Your task to perform on an android device: turn smart compose on in the gmail app Image 0: 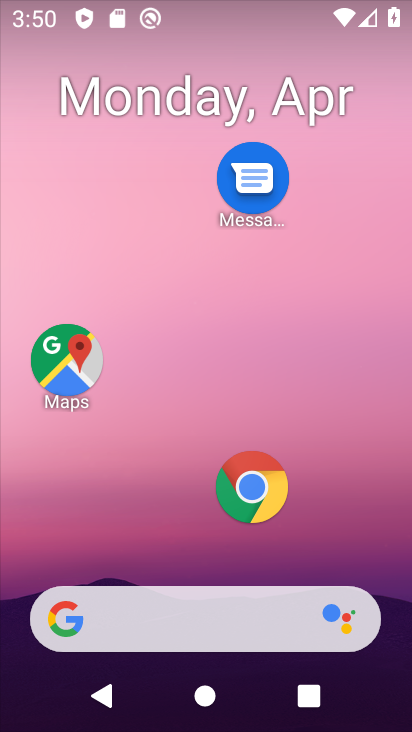
Step 0: drag from (158, 560) to (242, 142)
Your task to perform on an android device: turn smart compose on in the gmail app Image 1: 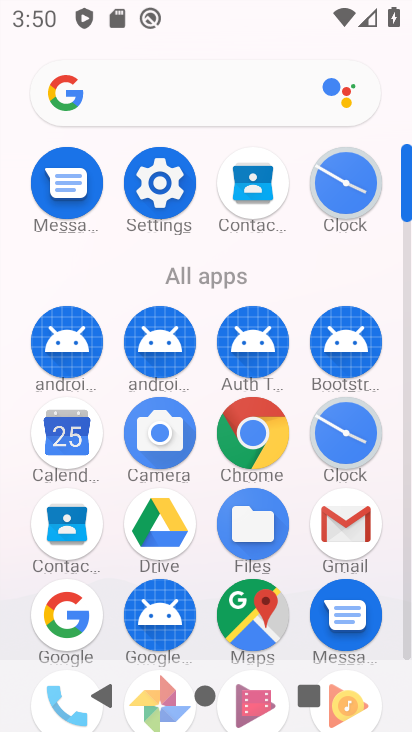
Step 1: click (360, 523)
Your task to perform on an android device: turn smart compose on in the gmail app Image 2: 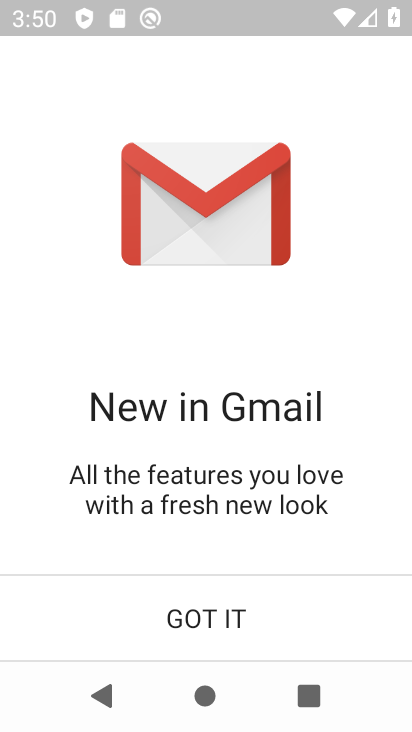
Step 2: click (213, 618)
Your task to perform on an android device: turn smart compose on in the gmail app Image 3: 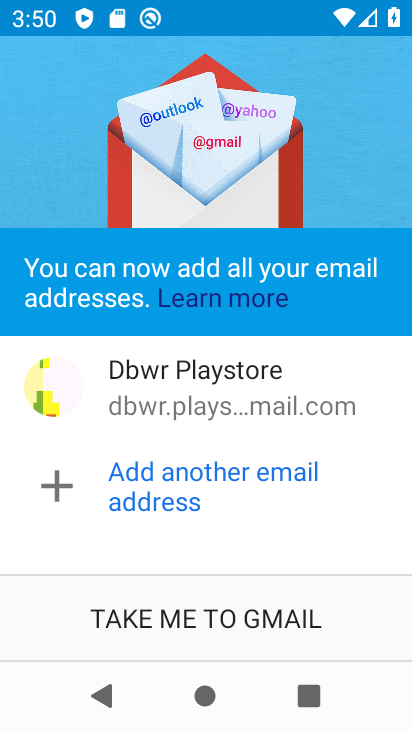
Step 3: click (225, 616)
Your task to perform on an android device: turn smart compose on in the gmail app Image 4: 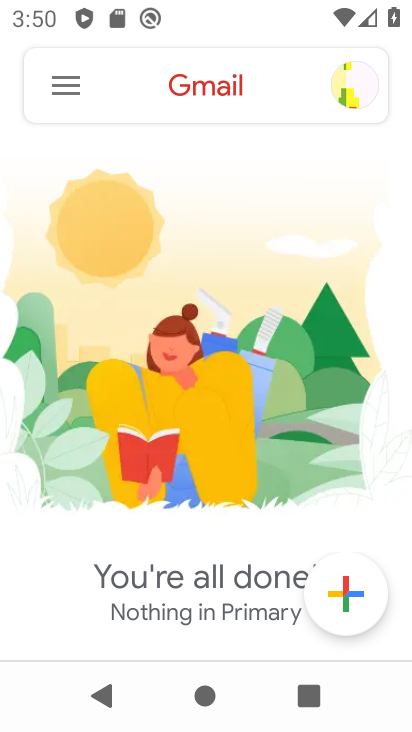
Step 4: click (77, 96)
Your task to perform on an android device: turn smart compose on in the gmail app Image 5: 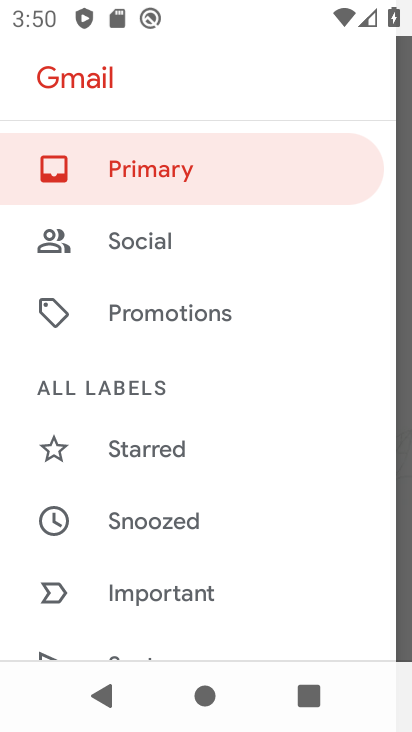
Step 5: drag from (152, 544) to (217, 244)
Your task to perform on an android device: turn smart compose on in the gmail app Image 6: 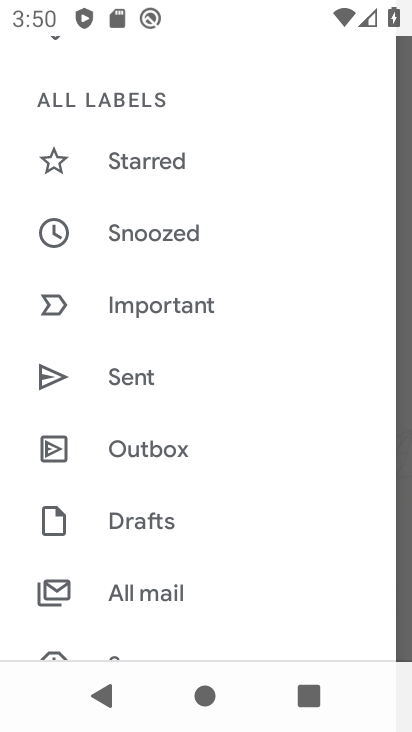
Step 6: drag from (138, 552) to (199, 288)
Your task to perform on an android device: turn smart compose on in the gmail app Image 7: 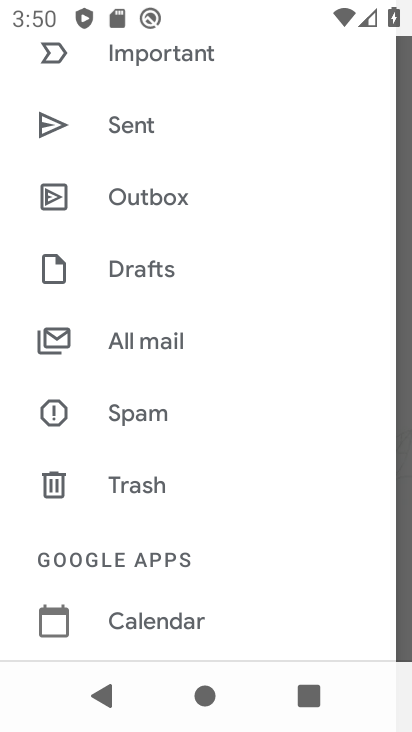
Step 7: drag from (149, 572) to (228, 179)
Your task to perform on an android device: turn smart compose on in the gmail app Image 8: 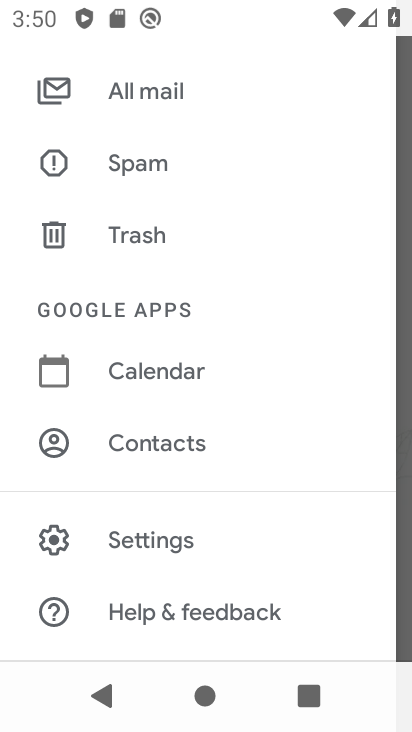
Step 8: click (142, 541)
Your task to perform on an android device: turn smart compose on in the gmail app Image 9: 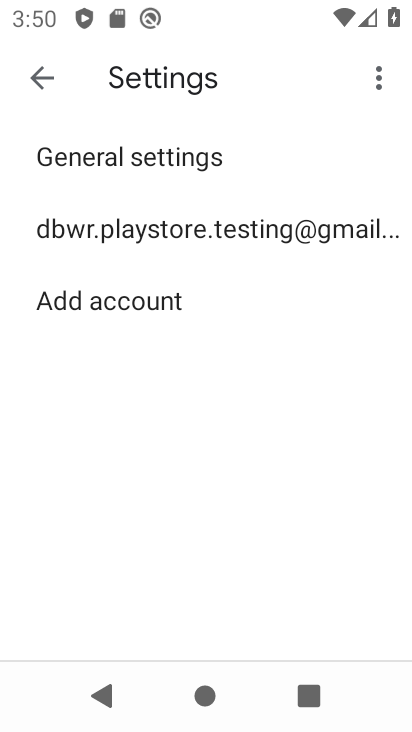
Step 9: click (192, 229)
Your task to perform on an android device: turn smart compose on in the gmail app Image 10: 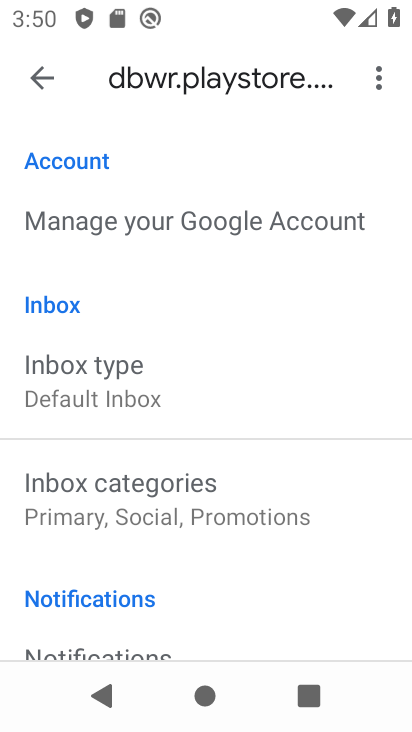
Step 10: task complete